Your task to perform on an android device: Open Google Chrome and click the shortcut for Amazon.com Image 0: 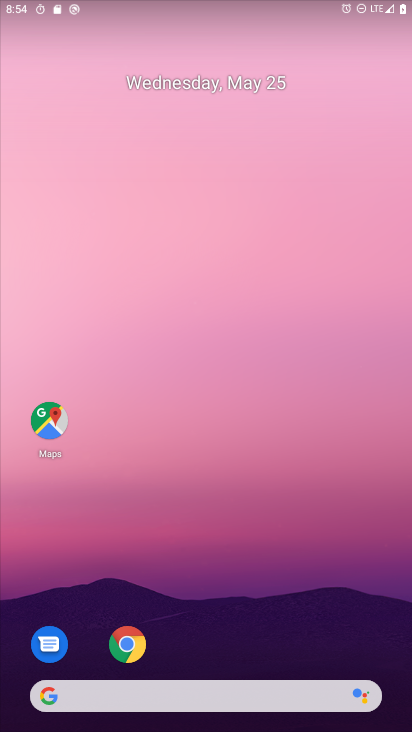
Step 0: drag from (366, 630) to (259, 44)
Your task to perform on an android device: Open Google Chrome and click the shortcut for Amazon.com Image 1: 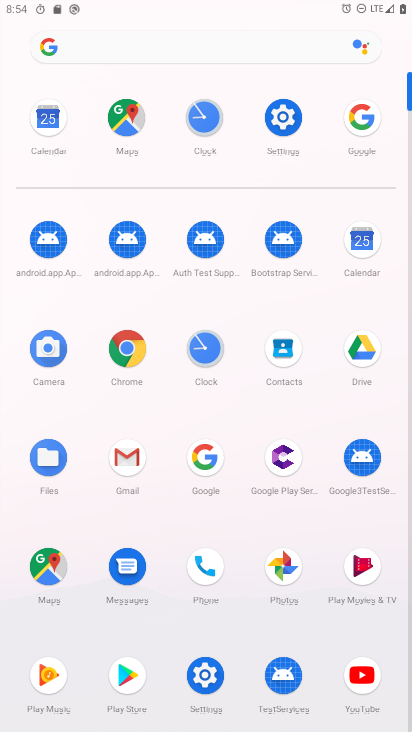
Step 1: click (133, 364)
Your task to perform on an android device: Open Google Chrome and click the shortcut for Amazon.com Image 2: 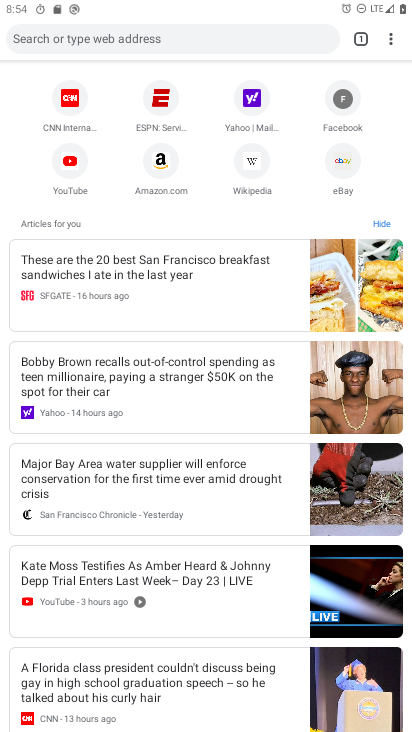
Step 2: click (165, 165)
Your task to perform on an android device: Open Google Chrome and click the shortcut for Amazon.com Image 3: 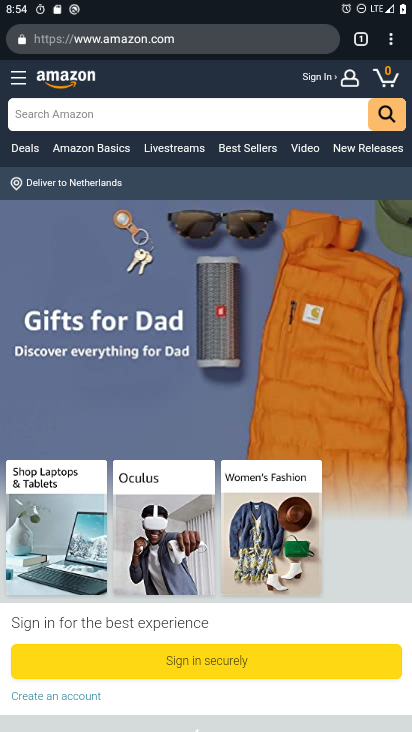
Step 3: task complete